Your task to perform on an android device: allow notifications from all sites in the chrome app Image 0: 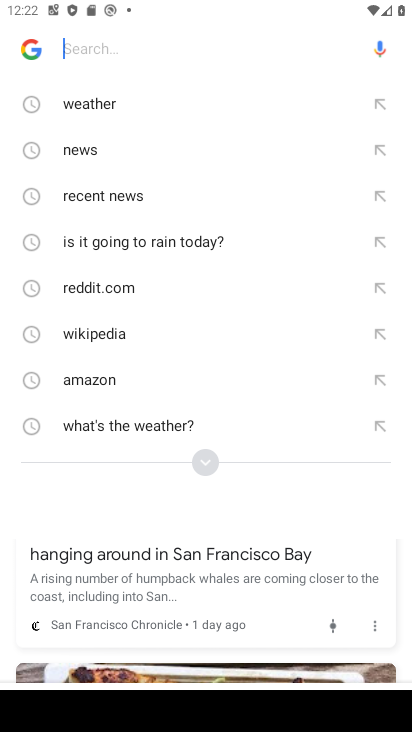
Step 0: press home button
Your task to perform on an android device: allow notifications from all sites in the chrome app Image 1: 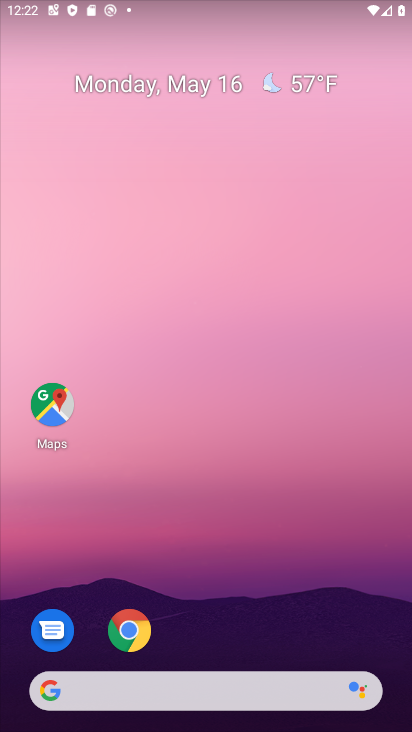
Step 1: click (128, 633)
Your task to perform on an android device: allow notifications from all sites in the chrome app Image 2: 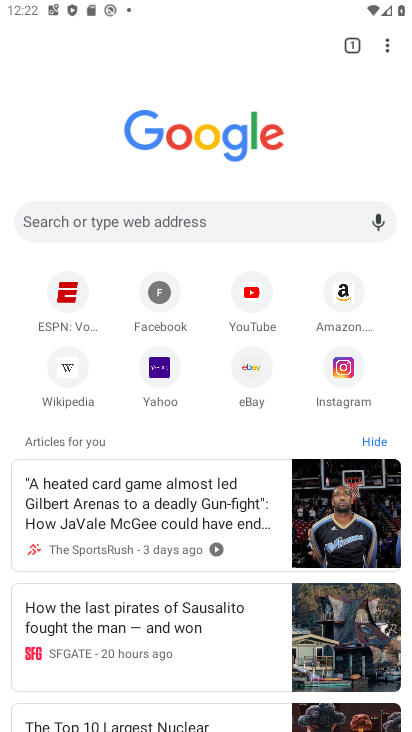
Step 2: click (388, 43)
Your task to perform on an android device: allow notifications from all sites in the chrome app Image 3: 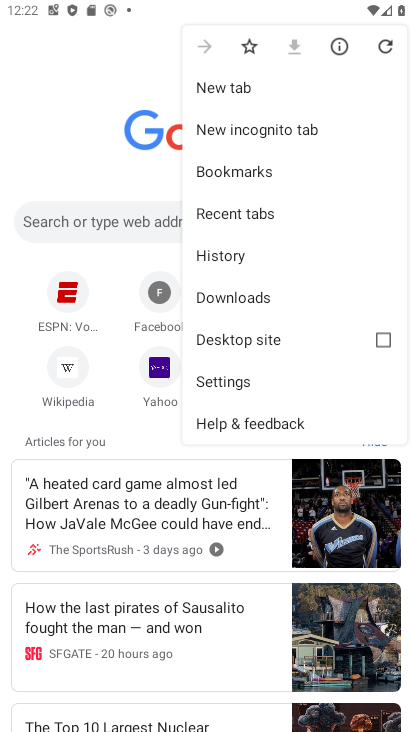
Step 3: click (221, 386)
Your task to perform on an android device: allow notifications from all sites in the chrome app Image 4: 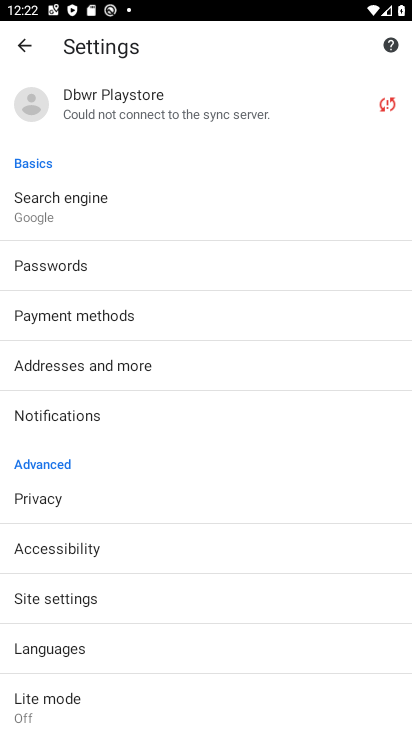
Step 4: click (69, 610)
Your task to perform on an android device: allow notifications from all sites in the chrome app Image 5: 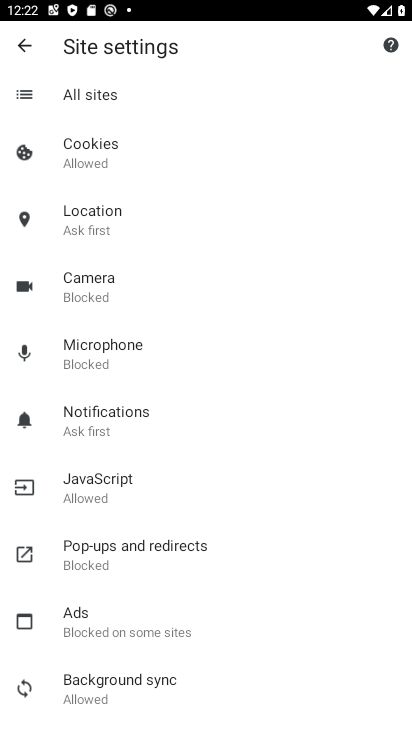
Step 5: click (124, 411)
Your task to perform on an android device: allow notifications from all sites in the chrome app Image 6: 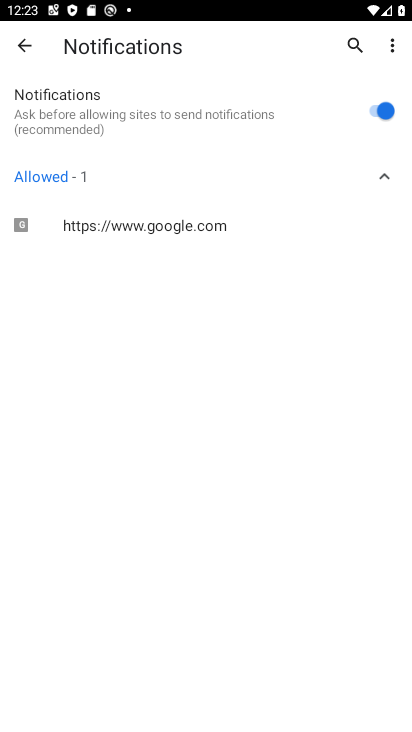
Step 6: task complete